Your task to perform on an android device: create a new album in the google photos Image 0: 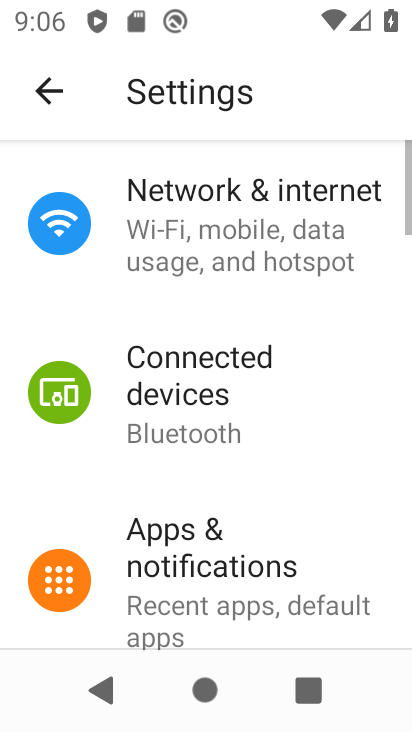
Step 0: press home button
Your task to perform on an android device: create a new album in the google photos Image 1: 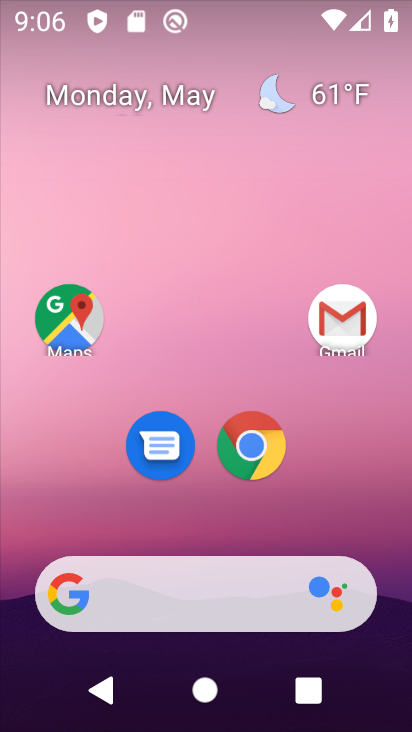
Step 1: drag from (382, 522) to (365, 200)
Your task to perform on an android device: create a new album in the google photos Image 2: 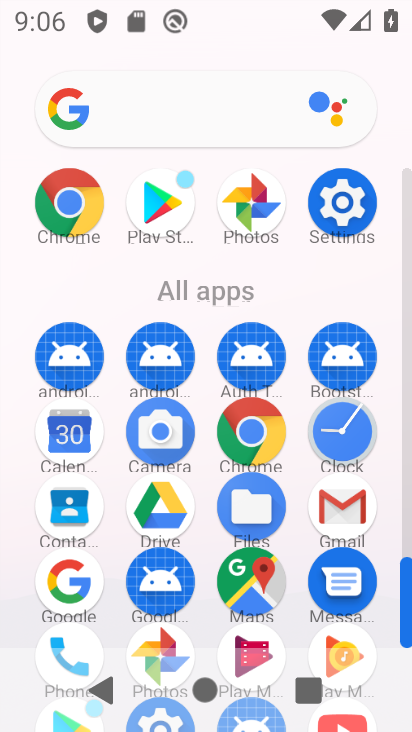
Step 2: click (260, 221)
Your task to perform on an android device: create a new album in the google photos Image 3: 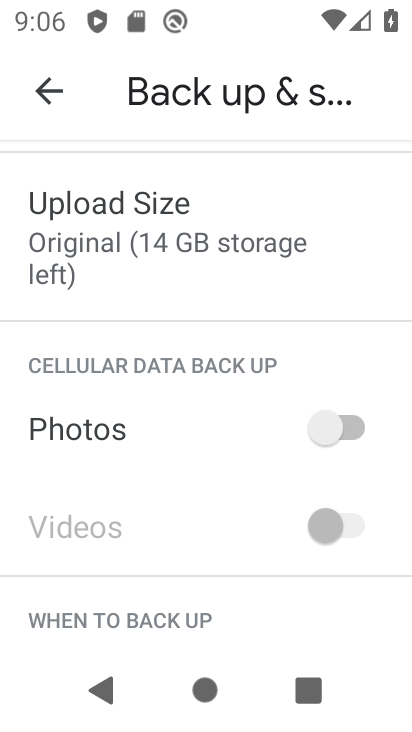
Step 3: click (53, 98)
Your task to perform on an android device: create a new album in the google photos Image 4: 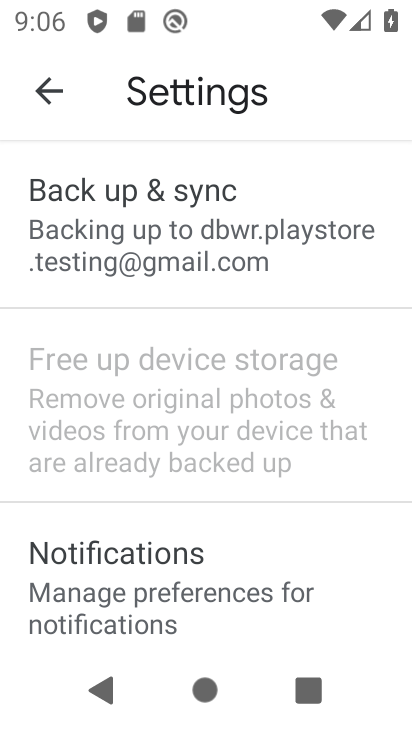
Step 4: click (53, 106)
Your task to perform on an android device: create a new album in the google photos Image 5: 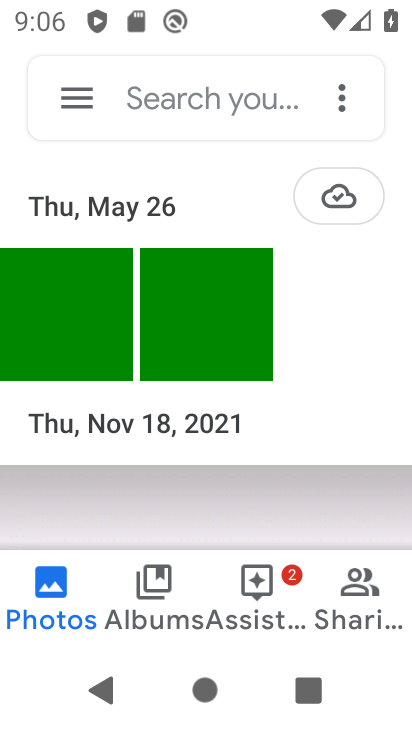
Step 5: click (341, 114)
Your task to perform on an android device: create a new album in the google photos Image 6: 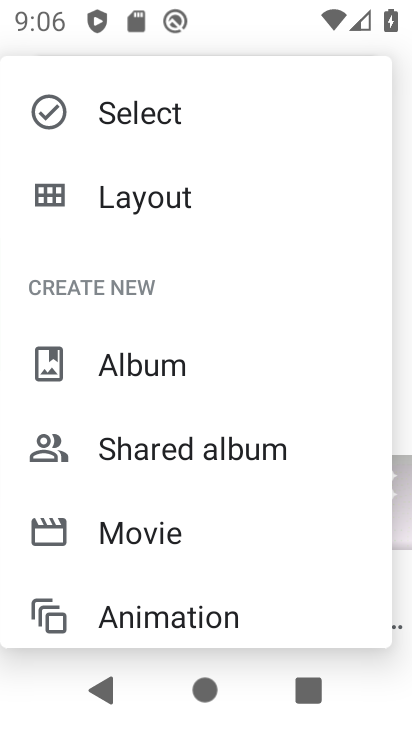
Step 6: click (181, 358)
Your task to perform on an android device: create a new album in the google photos Image 7: 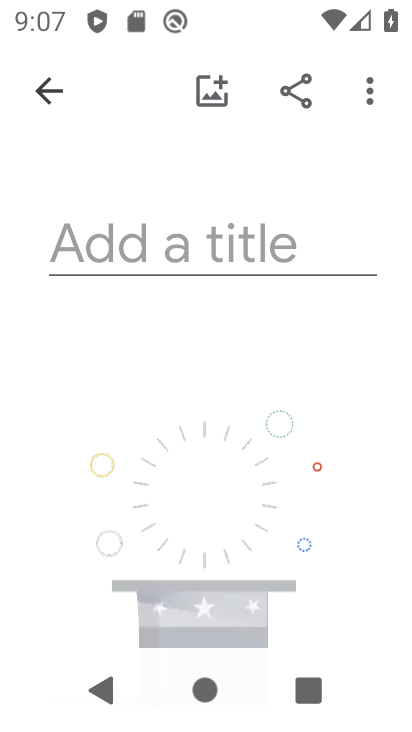
Step 7: click (184, 240)
Your task to perform on an android device: create a new album in the google photos Image 8: 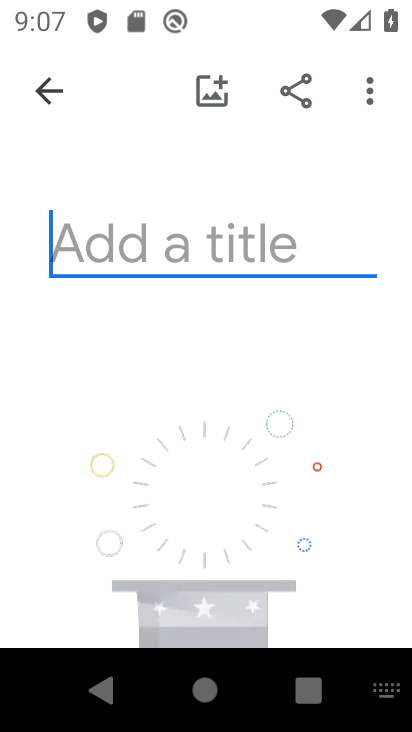
Step 8: type "fav"
Your task to perform on an android device: create a new album in the google photos Image 9: 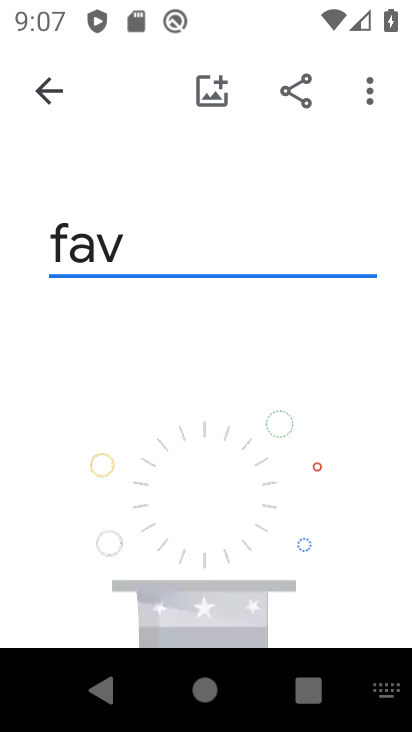
Step 9: drag from (362, 514) to (368, 302)
Your task to perform on an android device: create a new album in the google photos Image 10: 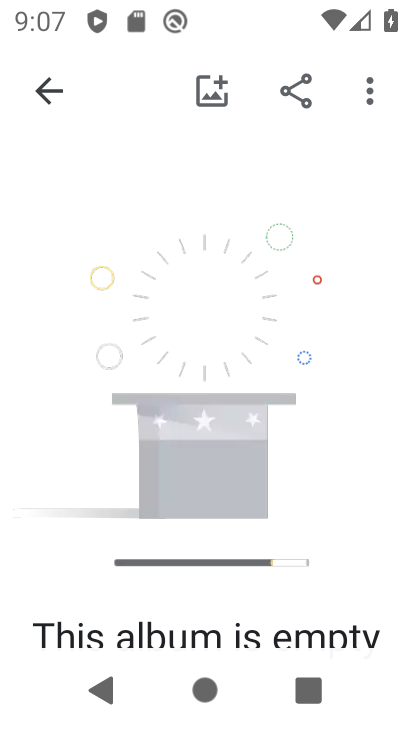
Step 10: drag from (267, 526) to (263, 249)
Your task to perform on an android device: create a new album in the google photos Image 11: 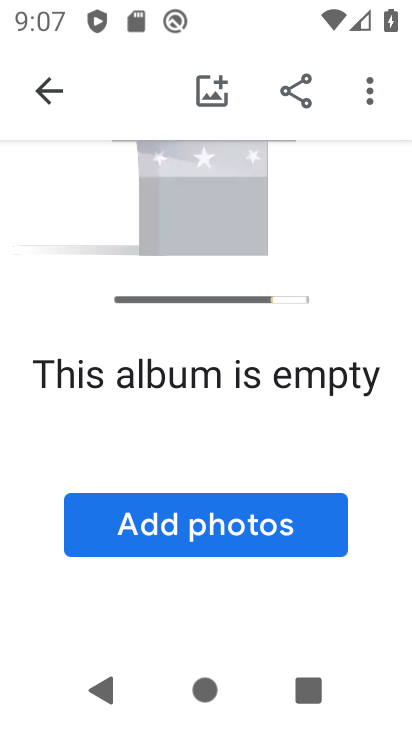
Step 11: click (219, 523)
Your task to perform on an android device: create a new album in the google photos Image 12: 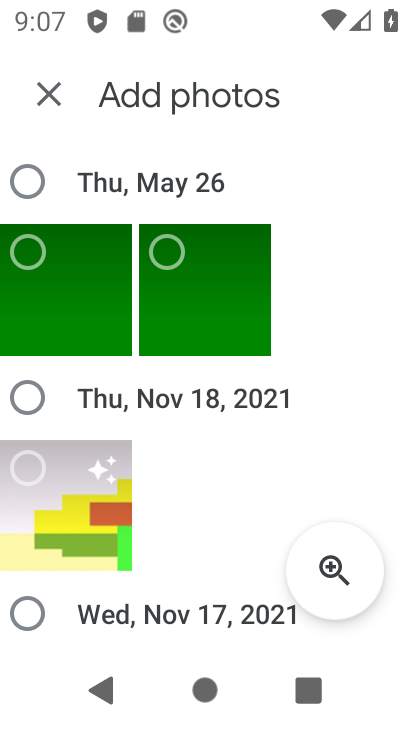
Step 12: click (32, 291)
Your task to perform on an android device: create a new album in the google photos Image 13: 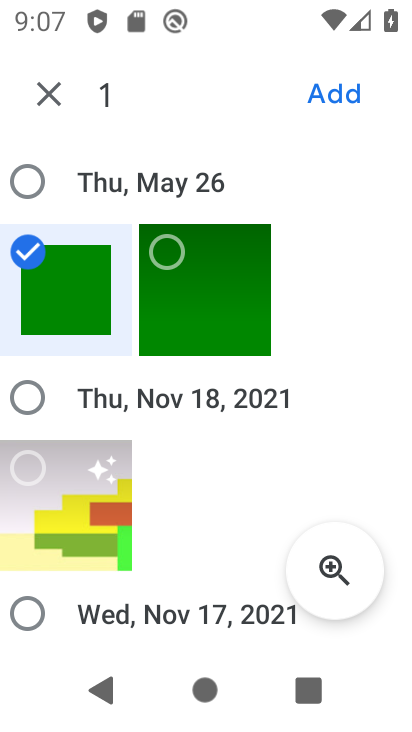
Step 13: click (227, 312)
Your task to perform on an android device: create a new album in the google photos Image 14: 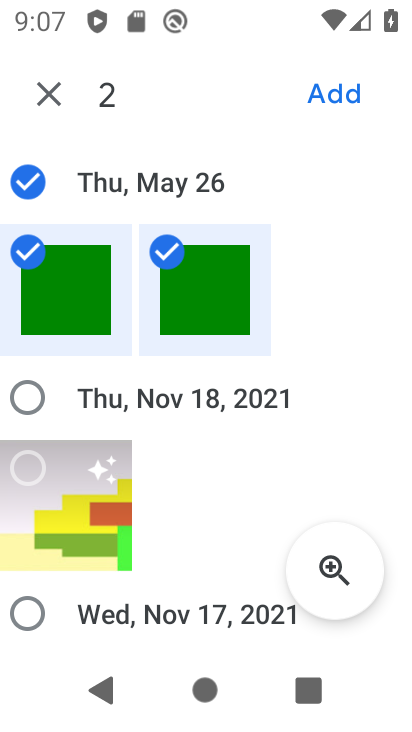
Step 14: click (354, 91)
Your task to perform on an android device: create a new album in the google photos Image 15: 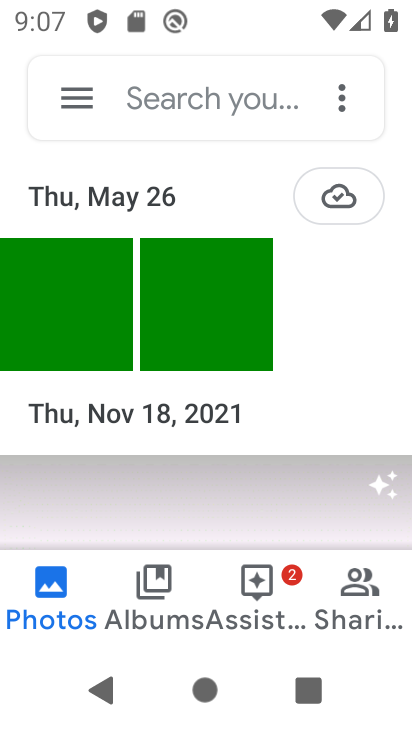
Step 15: task complete